Your task to perform on an android device: turn on priority inbox in the gmail app Image 0: 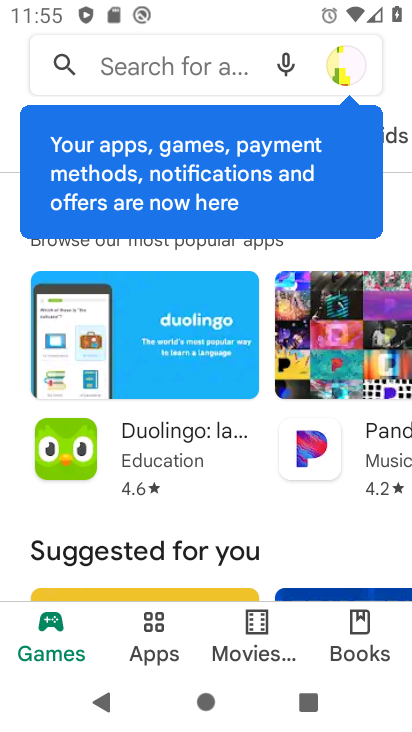
Step 0: press home button
Your task to perform on an android device: turn on priority inbox in the gmail app Image 1: 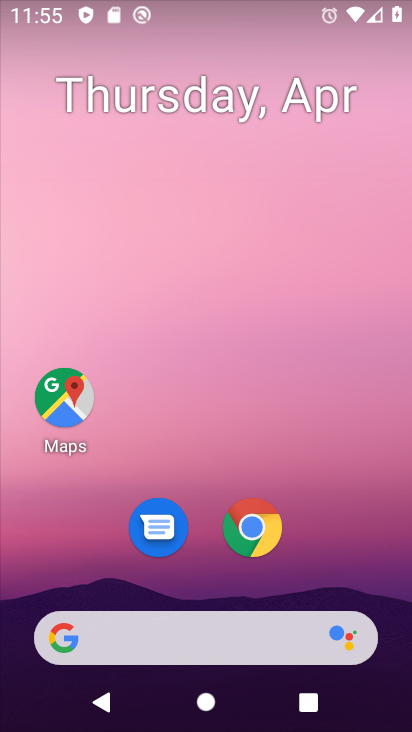
Step 1: drag from (209, 597) to (200, 161)
Your task to perform on an android device: turn on priority inbox in the gmail app Image 2: 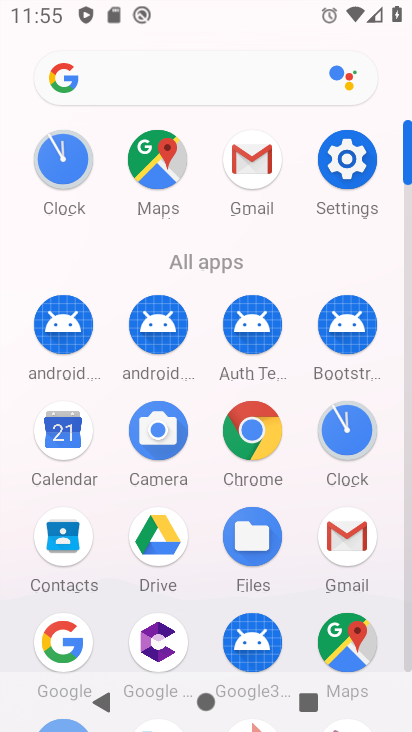
Step 2: click (248, 157)
Your task to perform on an android device: turn on priority inbox in the gmail app Image 3: 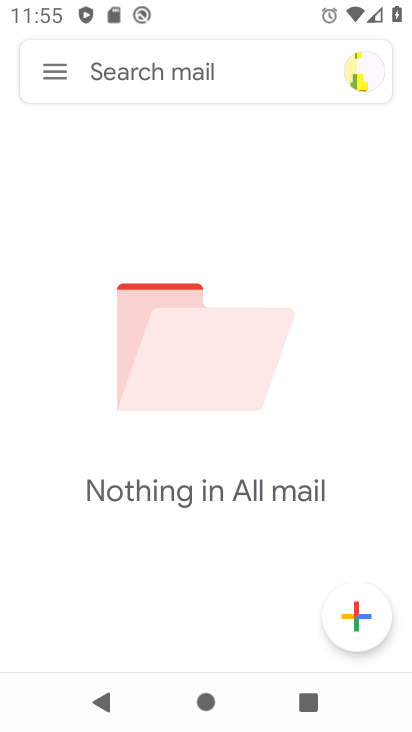
Step 3: click (53, 72)
Your task to perform on an android device: turn on priority inbox in the gmail app Image 4: 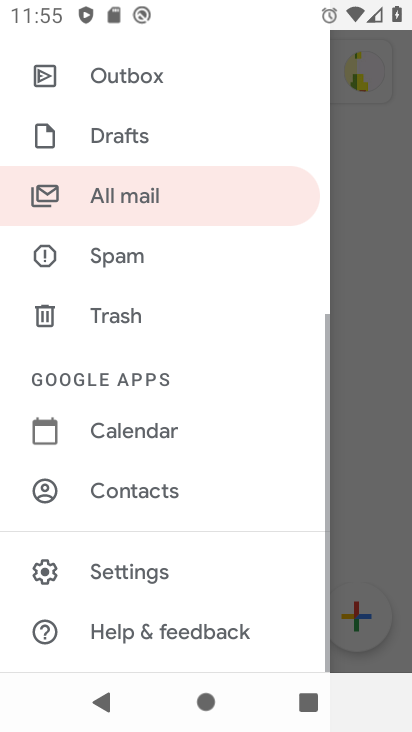
Step 4: click (145, 565)
Your task to perform on an android device: turn on priority inbox in the gmail app Image 5: 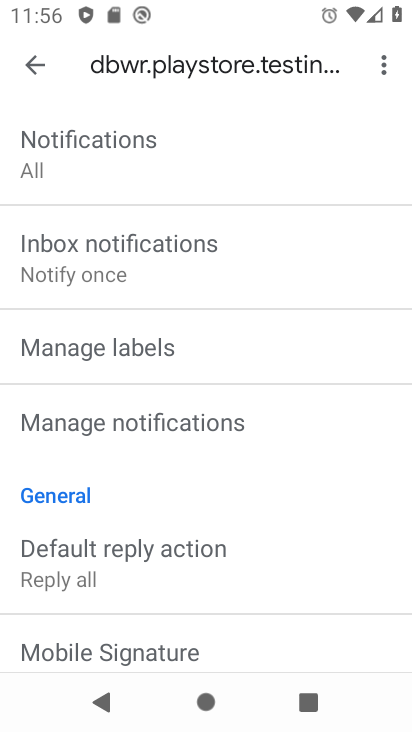
Step 5: drag from (160, 208) to (174, 515)
Your task to perform on an android device: turn on priority inbox in the gmail app Image 6: 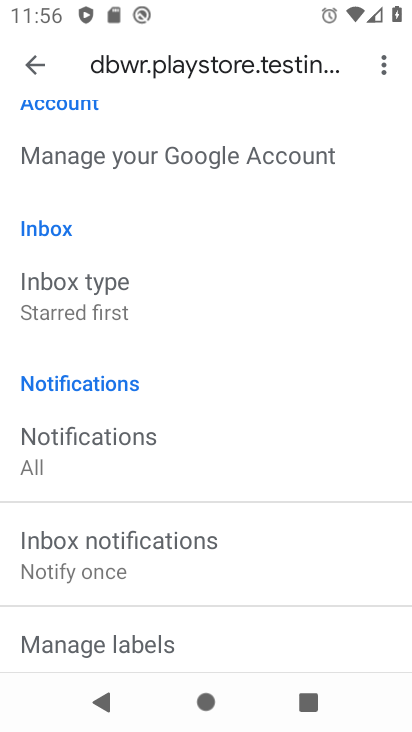
Step 6: click (121, 306)
Your task to perform on an android device: turn on priority inbox in the gmail app Image 7: 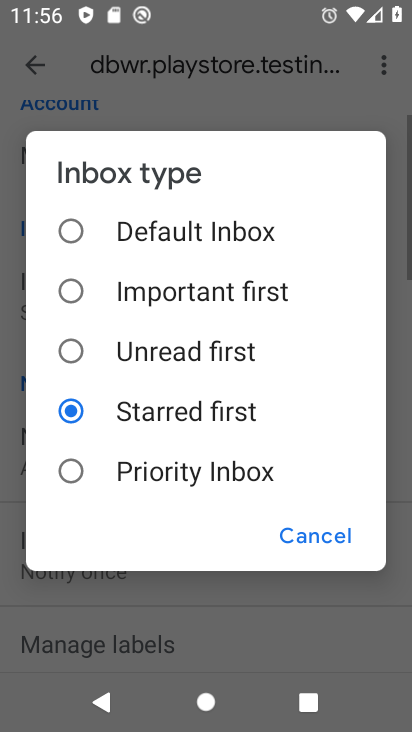
Step 7: click (156, 460)
Your task to perform on an android device: turn on priority inbox in the gmail app Image 8: 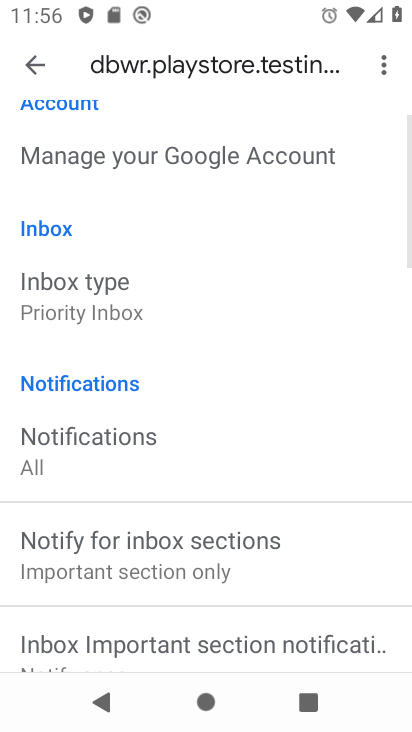
Step 8: task complete